Your task to perform on an android device: add a contact Image 0: 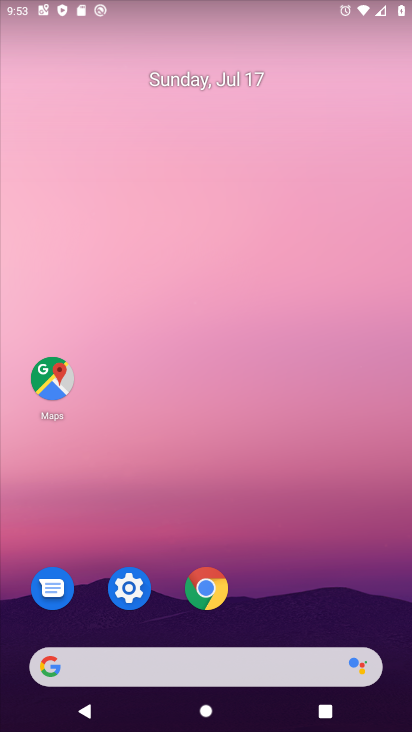
Step 0: drag from (170, 549) to (166, 277)
Your task to perform on an android device: add a contact Image 1: 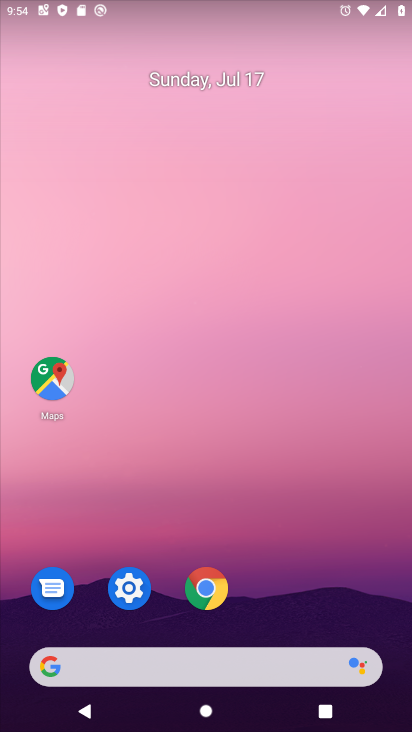
Step 1: drag from (192, 537) to (128, 14)
Your task to perform on an android device: add a contact Image 2: 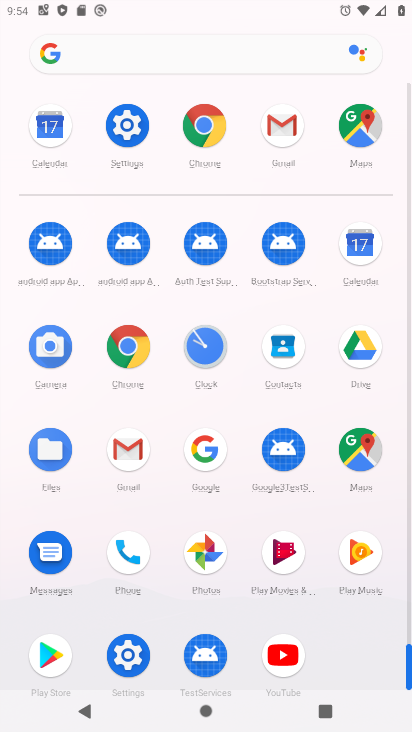
Step 2: click (268, 343)
Your task to perform on an android device: add a contact Image 3: 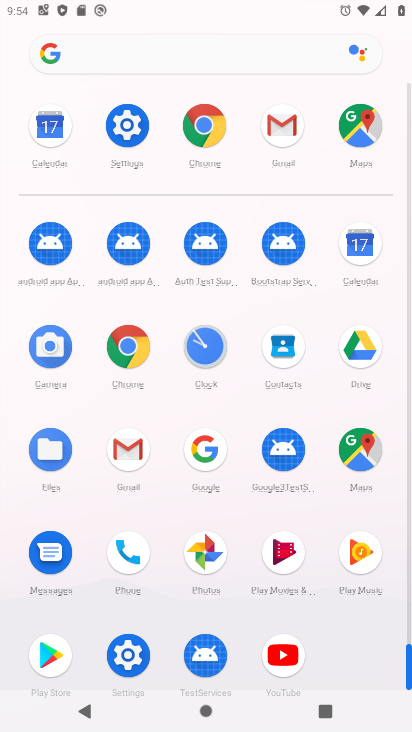
Step 3: click (278, 346)
Your task to perform on an android device: add a contact Image 4: 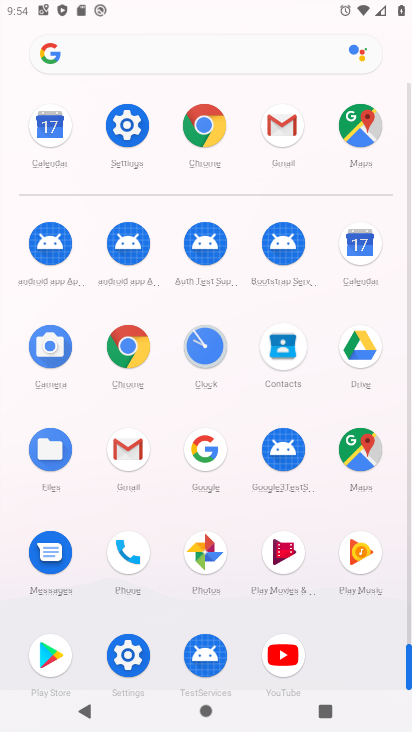
Step 4: click (279, 346)
Your task to perform on an android device: add a contact Image 5: 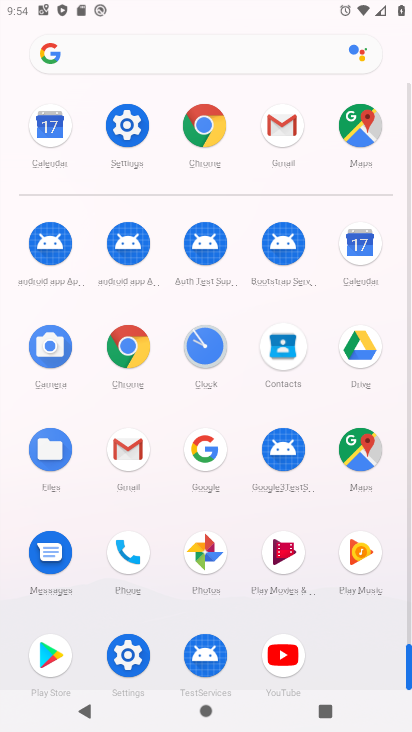
Step 5: click (279, 346)
Your task to perform on an android device: add a contact Image 6: 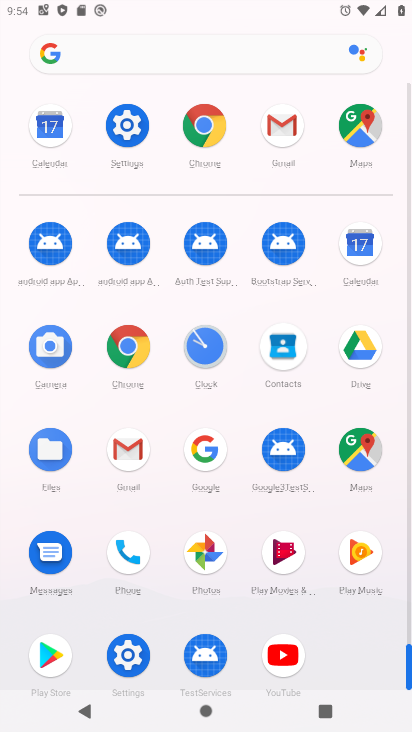
Step 6: click (281, 348)
Your task to perform on an android device: add a contact Image 7: 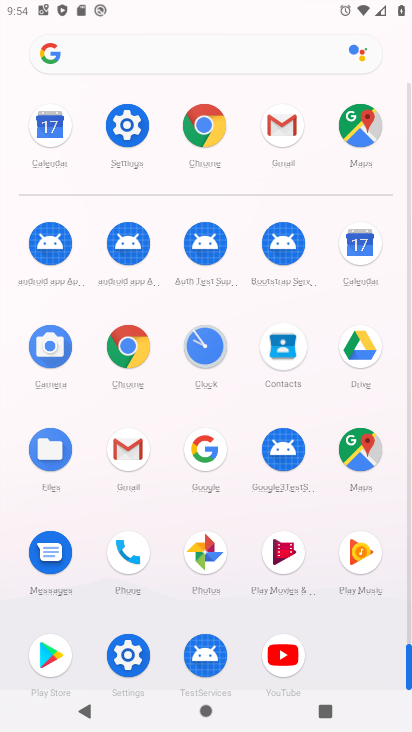
Step 7: click (281, 351)
Your task to perform on an android device: add a contact Image 8: 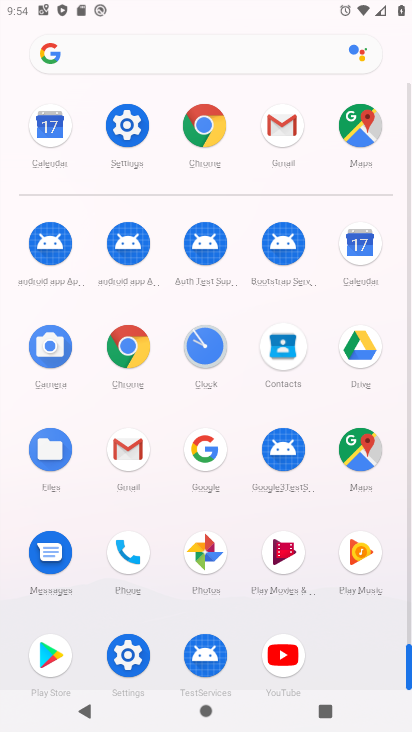
Step 8: click (282, 350)
Your task to perform on an android device: add a contact Image 9: 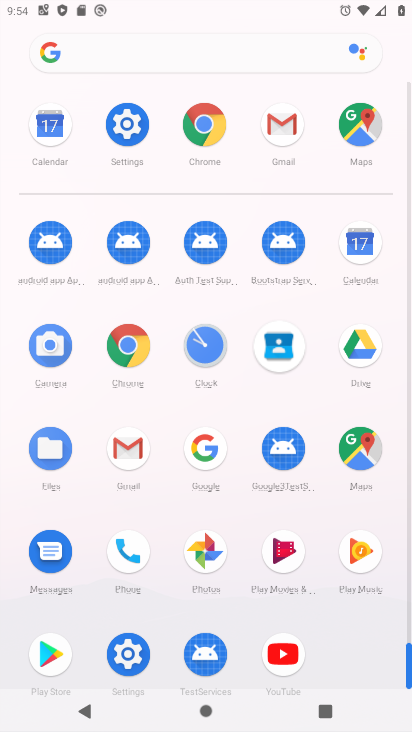
Step 9: click (283, 345)
Your task to perform on an android device: add a contact Image 10: 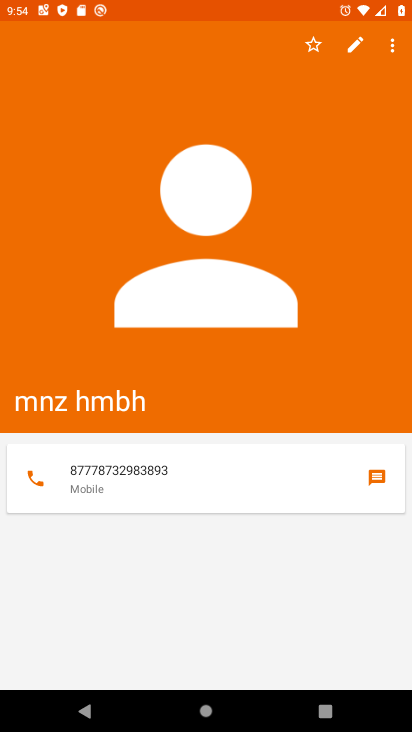
Step 10: click (387, 42)
Your task to perform on an android device: add a contact Image 11: 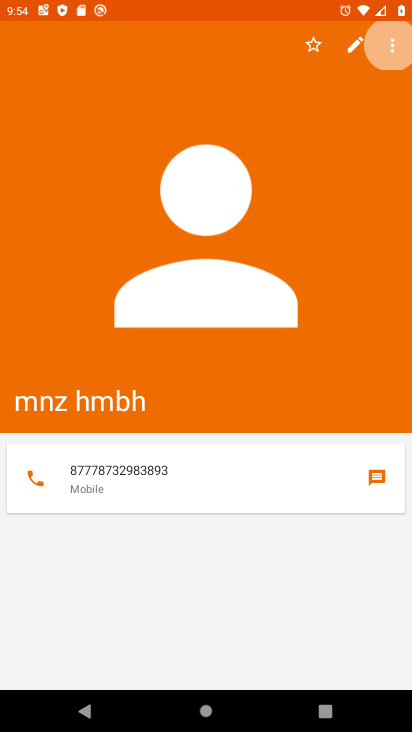
Step 11: click (387, 42)
Your task to perform on an android device: add a contact Image 12: 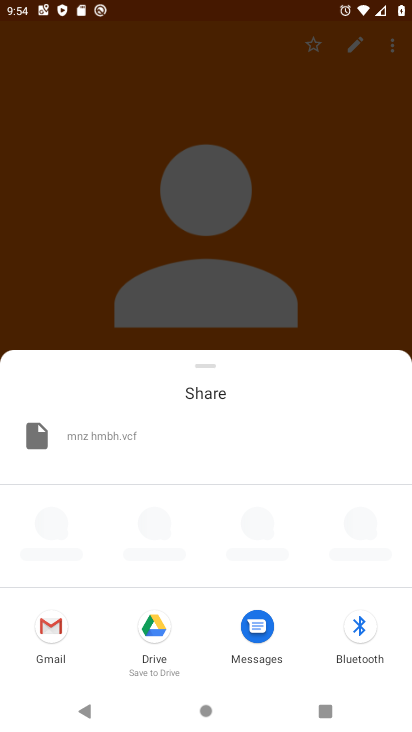
Step 12: click (76, 195)
Your task to perform on an android device: add a contact Image 13: 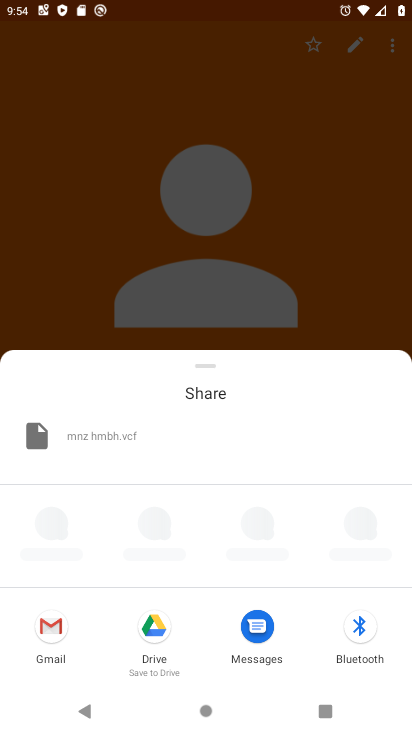
Step 13: click (76, 195)
Your task to perform on an android device: add a contact Image 14: 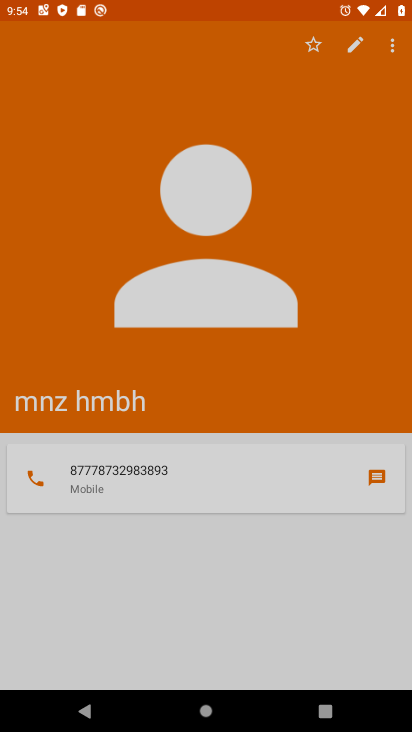
Step 14: click (75, 195)
Your task to perform on an android device: add a contact Image 15: 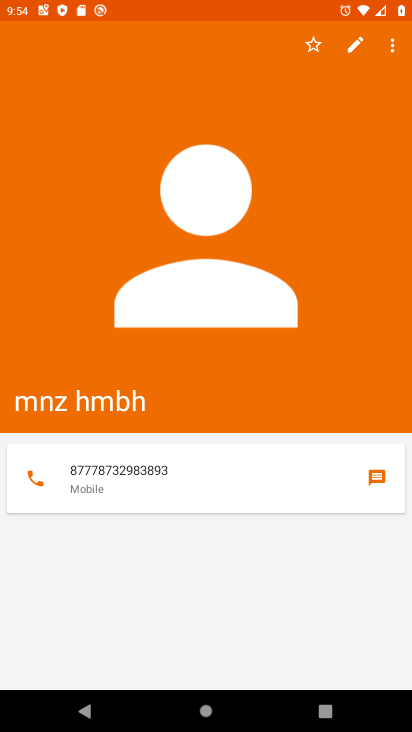
Step 15: click (75, 195)
Your task to perform on an android device: add a contact Image 16: 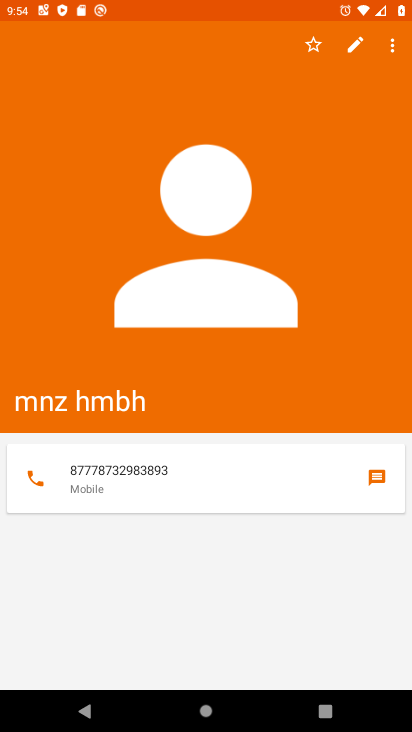
Step 16: press back button
Your task to perform on an android device: add a contact Image 17: 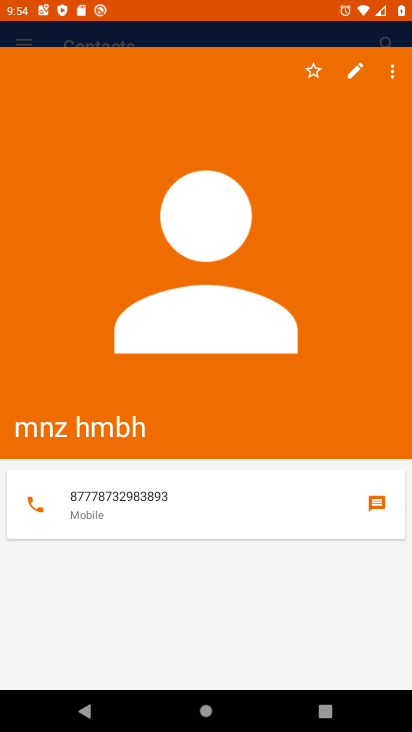
Step 17: press back button
Your task to perform on an android device: add a contact Image 18: 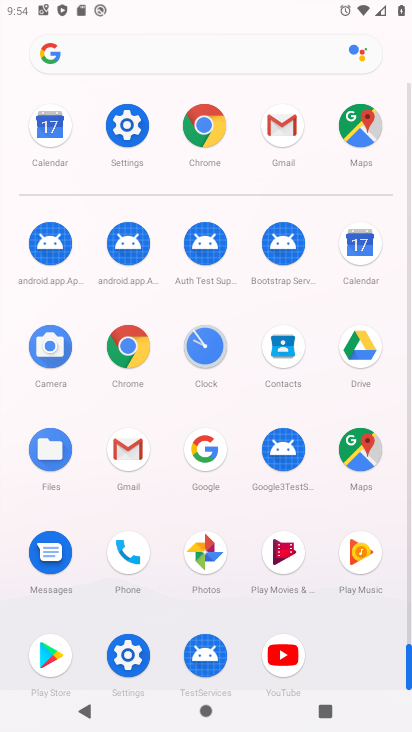
Step 18: click (291, 353)
Your task to perform on an android device: add a contact Image 19: 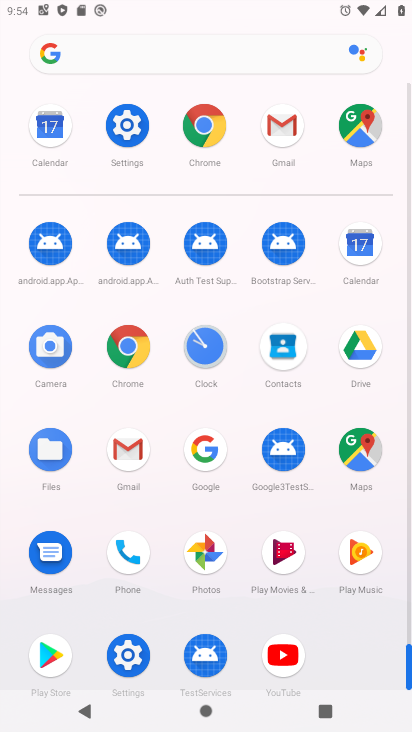
Step 19: click (291, 353)
Your task to perform on an android device: add a contact Image 20: 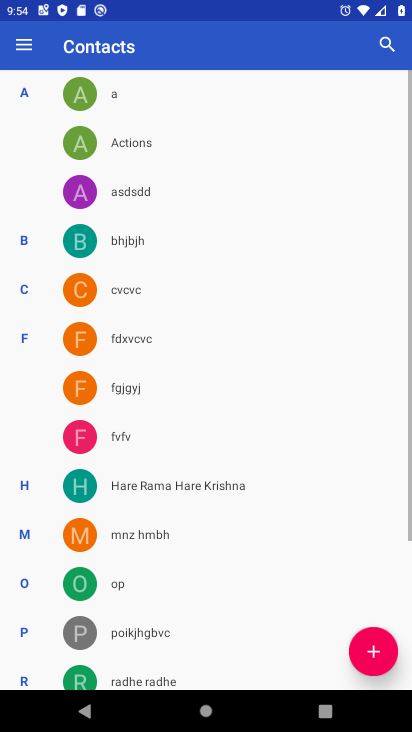
Step 20: click (374, 638)
Your task to perform on an android device: add a contact Image 21: 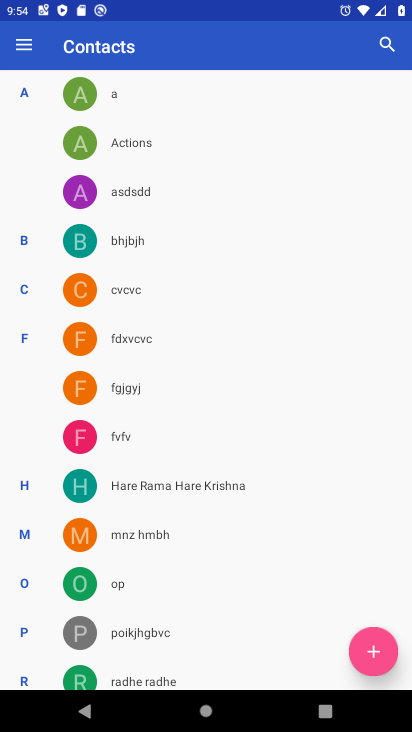
Step 21: click (373, 636)
Your task to perform on an android device: add a contact Image 22: 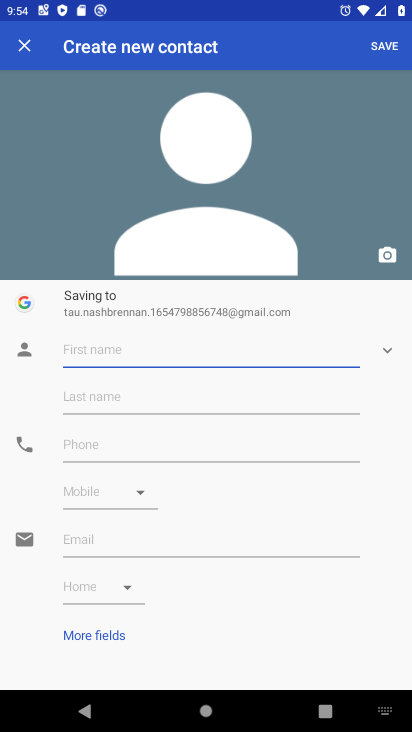
Step 22: type "hgvuhgbgh"
Your task to perform on an android device: add a contact Image 23: 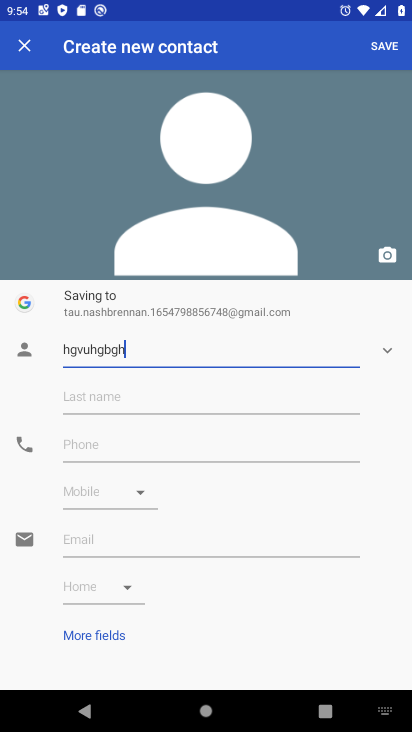
Step 23: click (70, 447)
Your task to perform on an android device: add a contact Image 24: 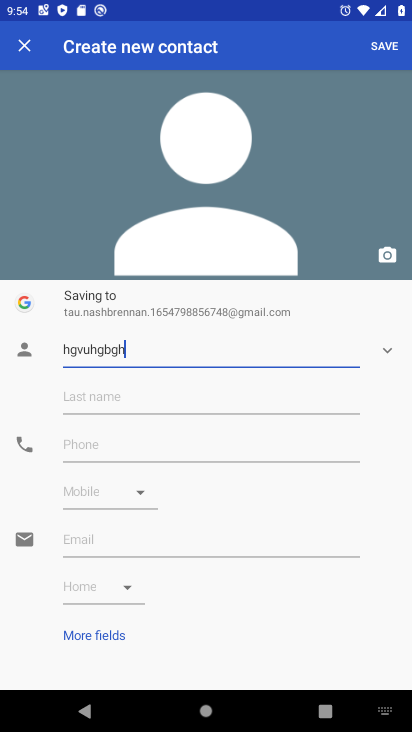
Step 24: click (70, 447)
Your task to perform on an android device: add a contact Image 25: 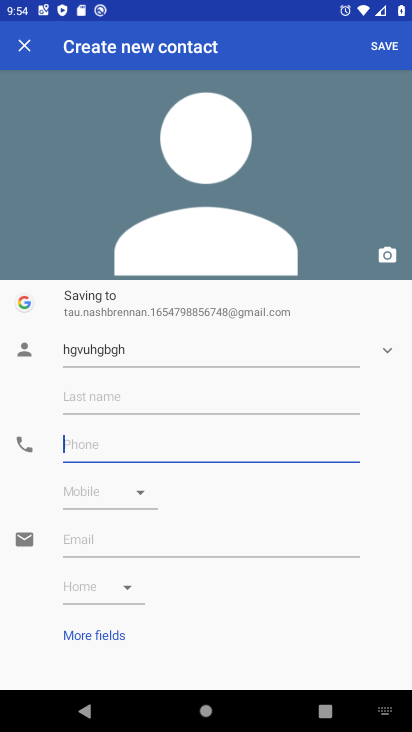
Step 25: click (70, 447)
Your task to perform on an android device: add a contact Image 26: 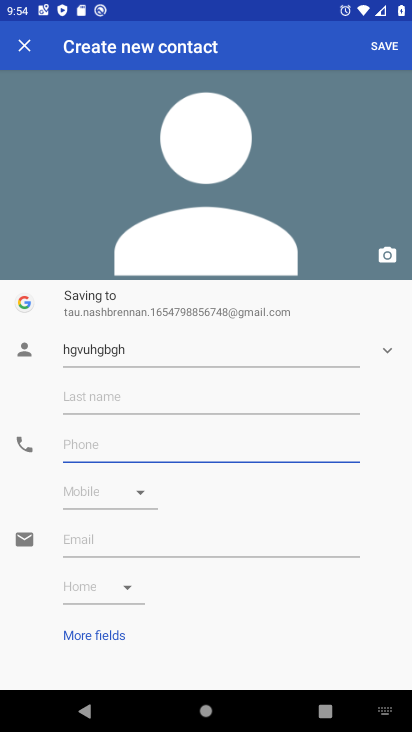
Step 26: click (70, 447)
Your task to perform on an android device: add a contact Image 27: 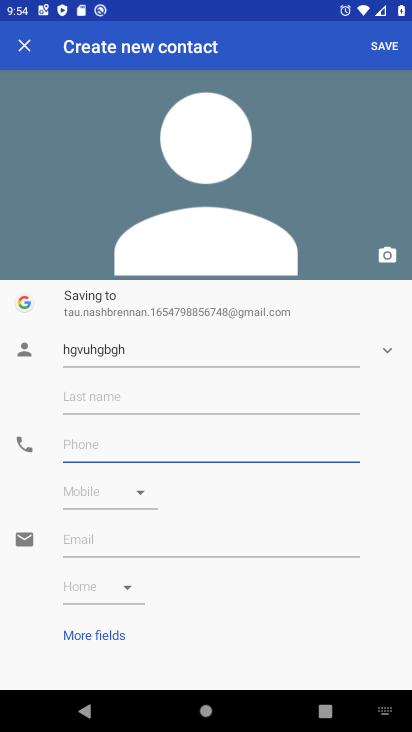
Step 27: type "76687687687789"
Your task to perform on an android device: add a contact Image 28: 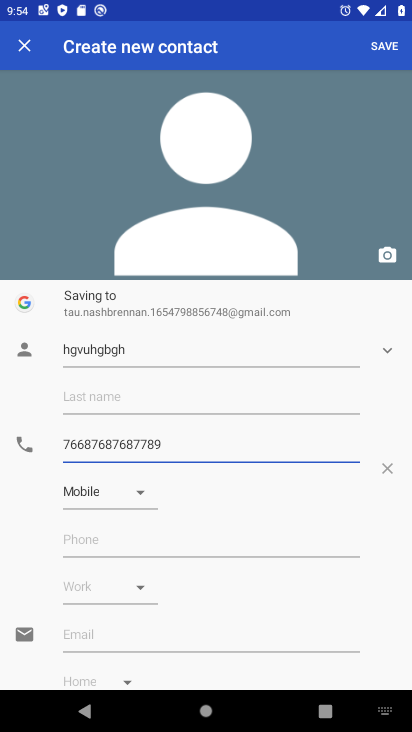
Step 28: click (388, 42)
Your task to perform on an android device: add a contact Image 29: 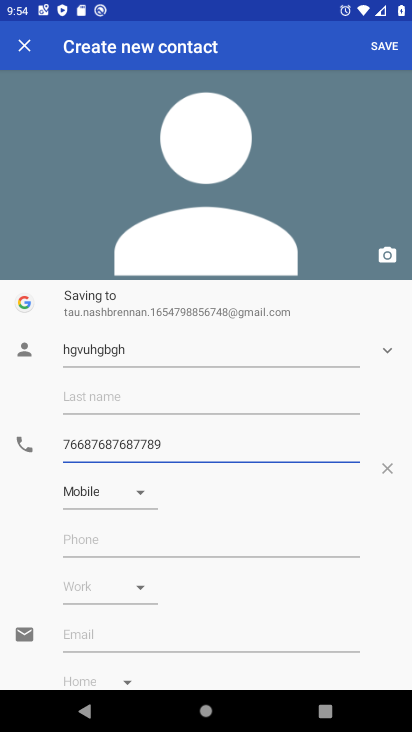
Step 29: click (388, 42)
Your task to perform on an android device: add a contact Image 30: 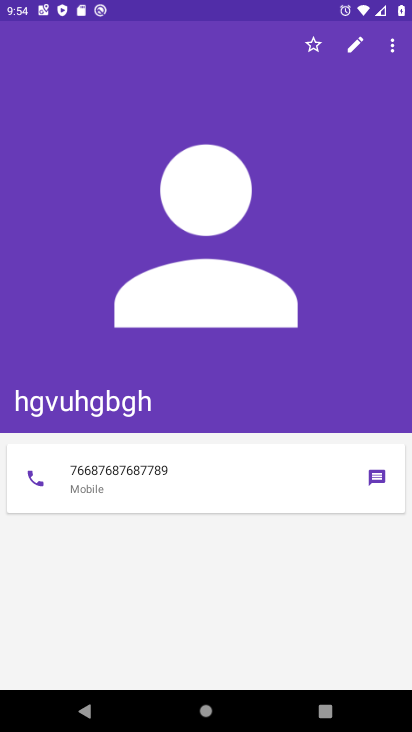
Step 30: task complete